Your task to perform on an android device: turn off improve location accuracy Image 0: 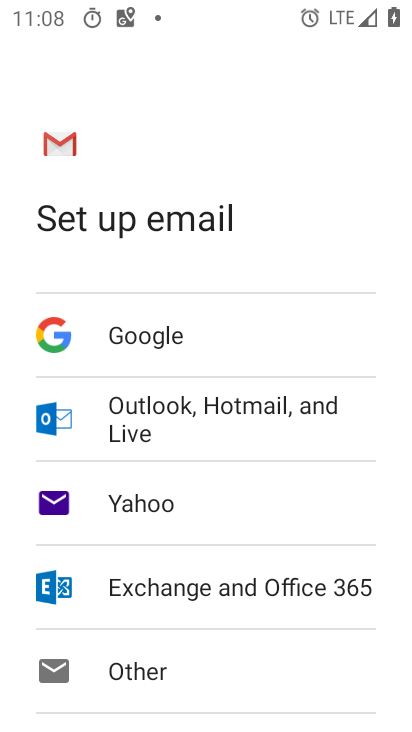
Step 0: press home button
Your task to perform on an android device: turn off improve location accuracy Image 1: 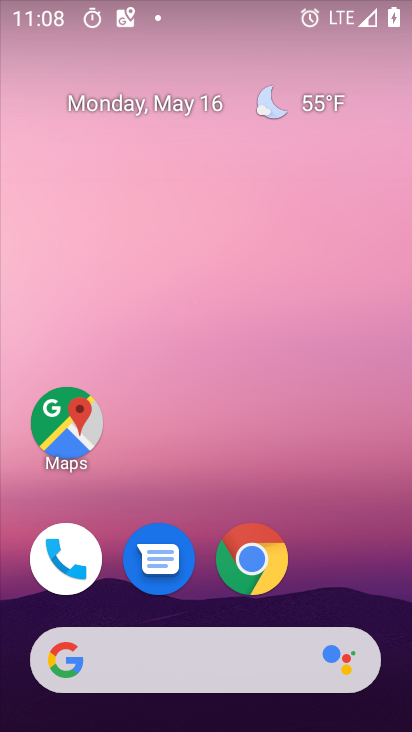
Step 1: drag from (340, 573) to (295, 114)
Your task to perform on an android device: turn off improve location accuracy Image 2: 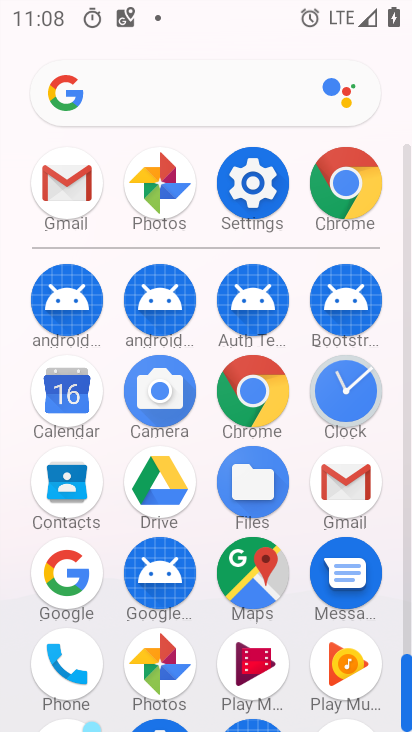
Step 2: click (268, 188)
Your task to perform on an android device: turn off improve location accuracy Image 3: 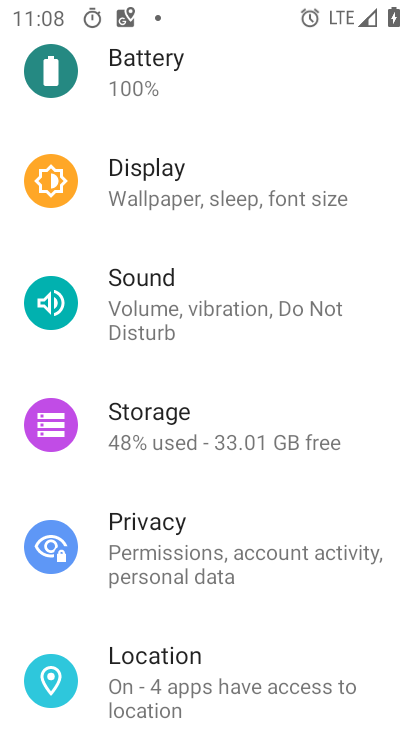
Step 3: drag from (314, 664) to (341, 187)
Your task to perform on an android device: turn off improve location accuracy Image 4: 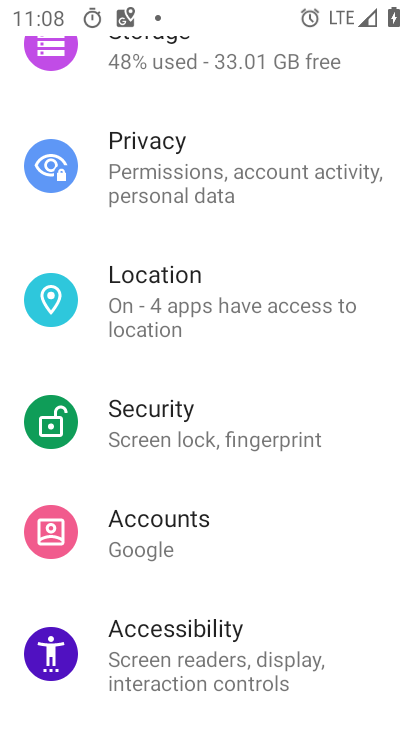
Step 4: drag from (369, 627) to (373, 233)
Your task to perform on an android device: turn off improve location accuracy Image 5: 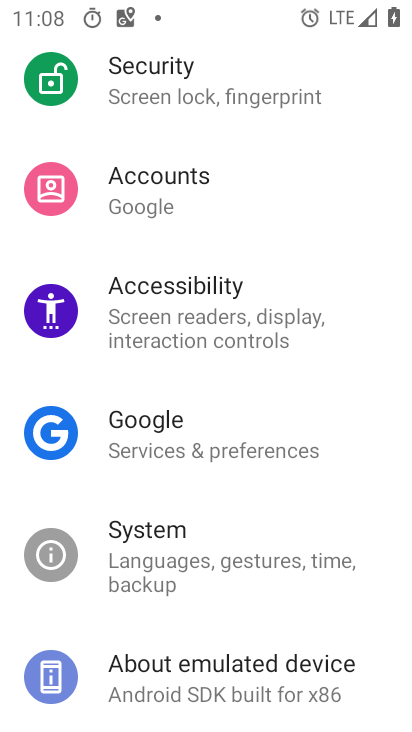
Step 5: drag from (208, 181) to (235, 731)
Your task to perform on an android device: turn off improve location accuracy Image 6: 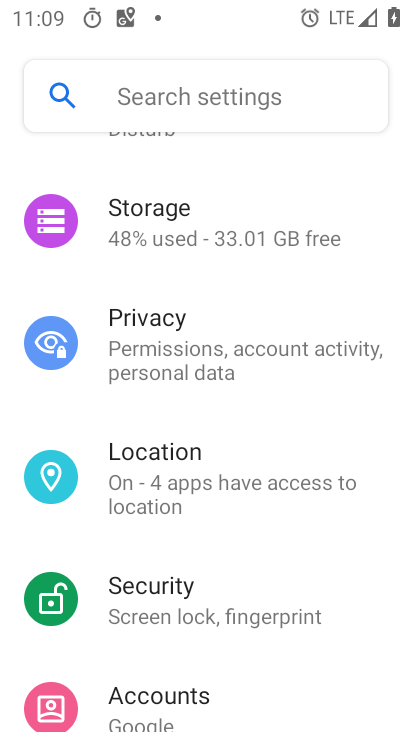
Step 6: drag from (288, 231) to (217, 663)
Your task to perform on an android device: turn off improve location accuracy Image 7: 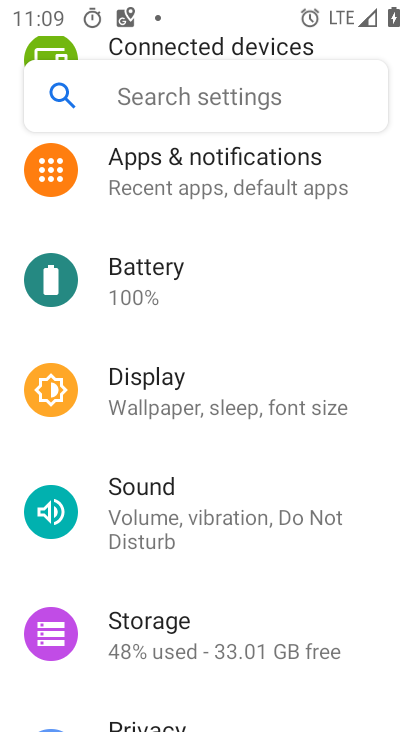
Step 7: drag from (303, 209) to (251, 566)
Your task to perform on an android device: turn off improve location accuracy Image 8: 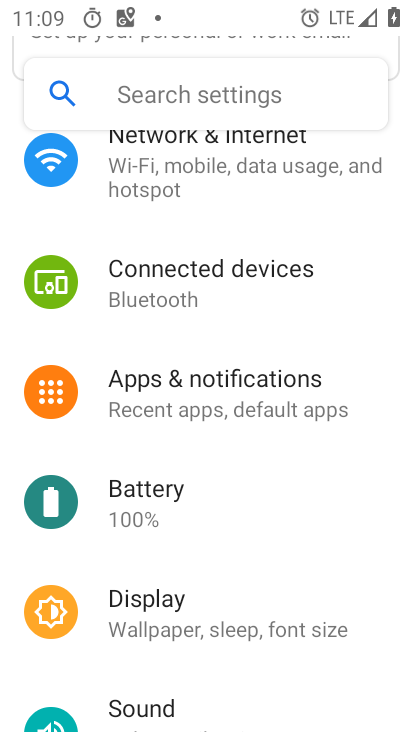
Step 8: drag from (230, 546) to (277, 214)
Your task to perform on an android device: turn off improve location accuracy Image 9: 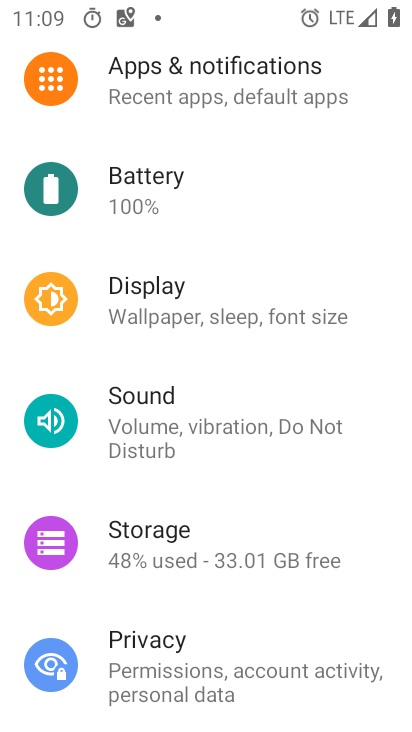
Step 9: drag from (228, 538) to (273, 325)
Your task to perform on an android device: turn off improve location accuracy Image 10: 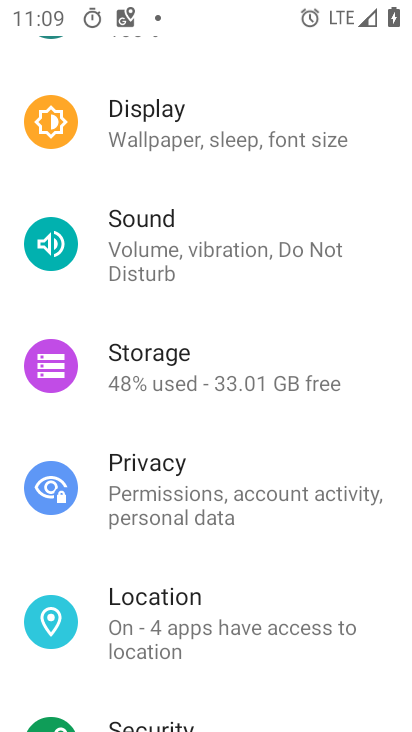
Step 10: drag from (263, 213) to (260, 657)
Your task to perform on an android device: turn off improve location accuracy Image 11: 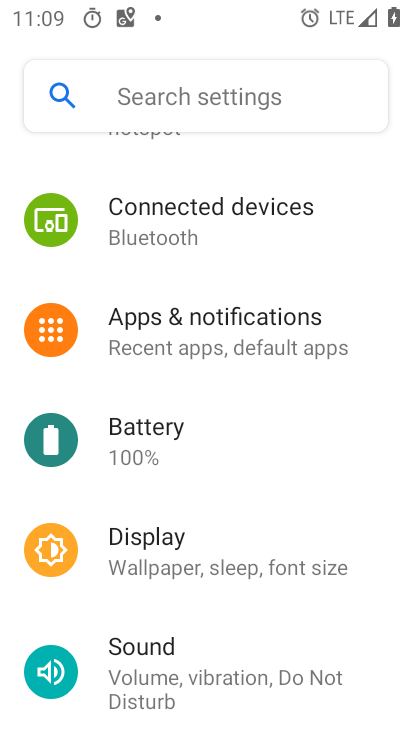
Step 11: drag from (263, 629) to (352, 225)
Your task to perform on an android device: turn off improve location accuracy Image 12: 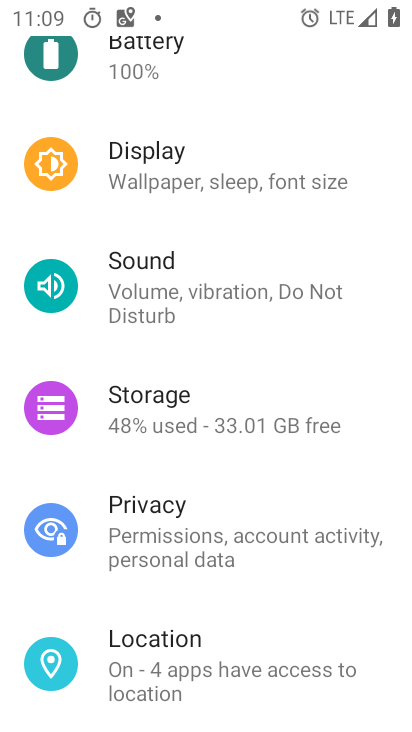
Step 12: click (164, 643)
Your task to perform on an android device: turn off improve location accuracy Image 13: 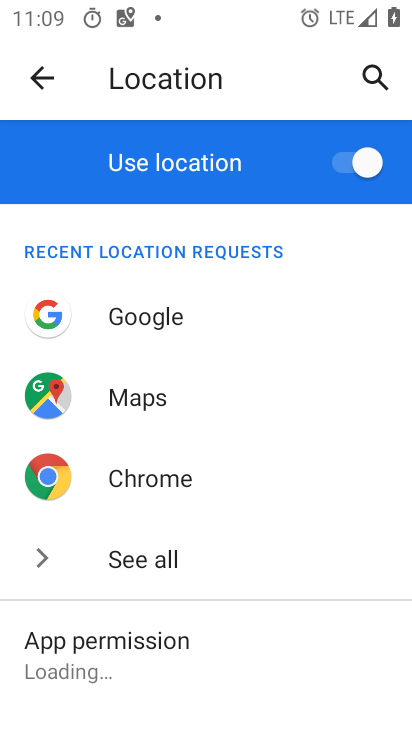
Step 13: drag from (305, 630) to (354, 221)
Your task to perform on an android device: turn off improve location accuracy Image 14: 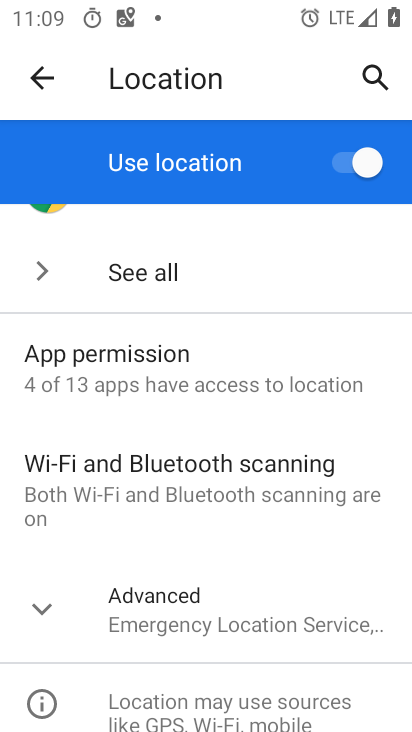
Step 14: drag from (207, 571) to (267, 261)
Your task to perform on an android device: turn off improve location accuracy Image 15: 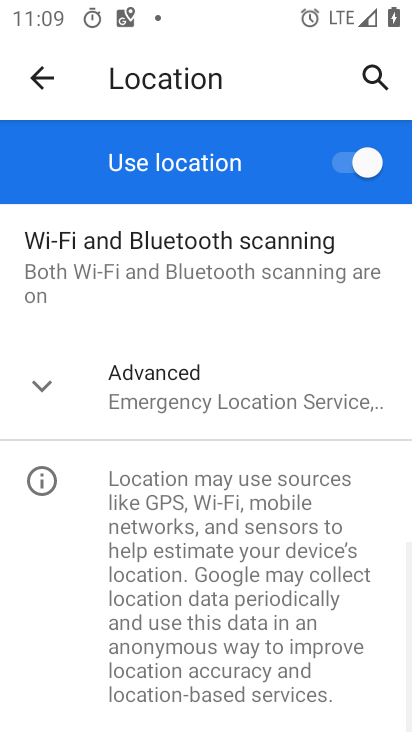
Step 15: click (206, 384)
Your task to perform on an android device: turn off improve location accuracy Image 16: 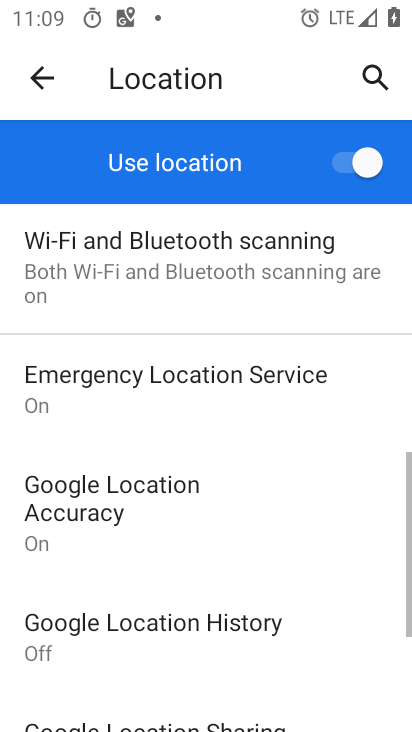
Step 16: drag from (275, 600) to (307, 353)
Your task to perform on an android device: turn off improve location accuracy Image 17: 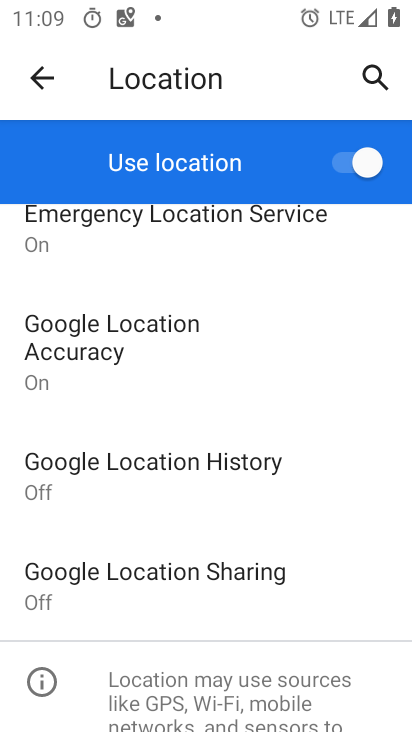
Step 17: click (170, 340)
Your task to perform on an android device: turn off improve location accuracy Image 18: 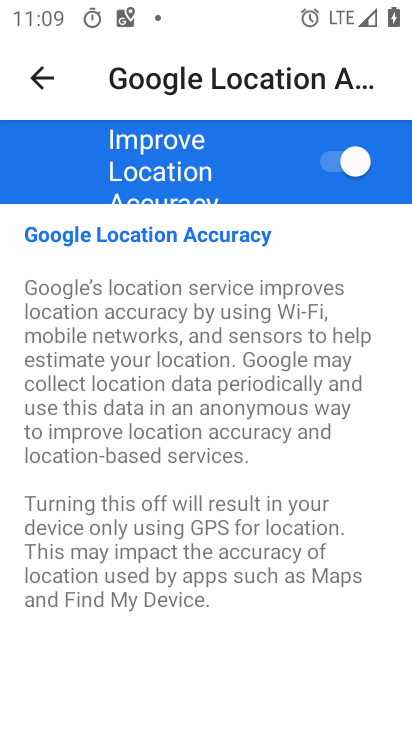
Step 18: click (329, 157)
Your task to perform on an android device: turn off improve location accuracy Image 19: 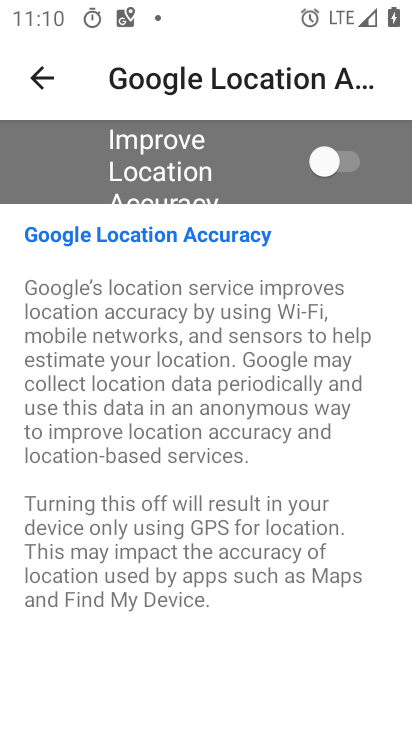
Step 19: task complete